Your task to perform on an android device: check data usage Image 0: 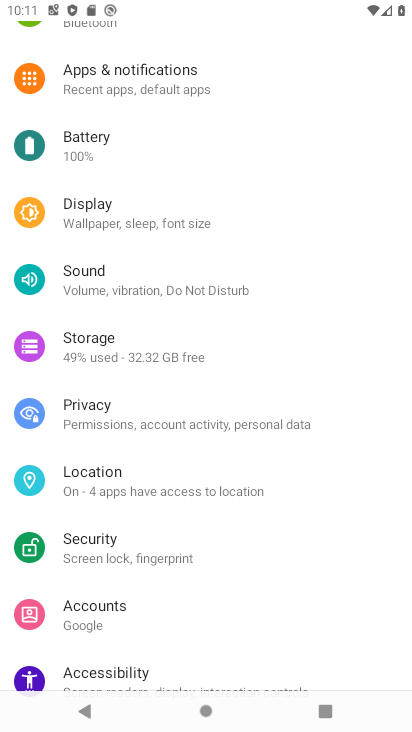
Step 0: press home button
Your task to perform on an android device: check data usage Image 1: 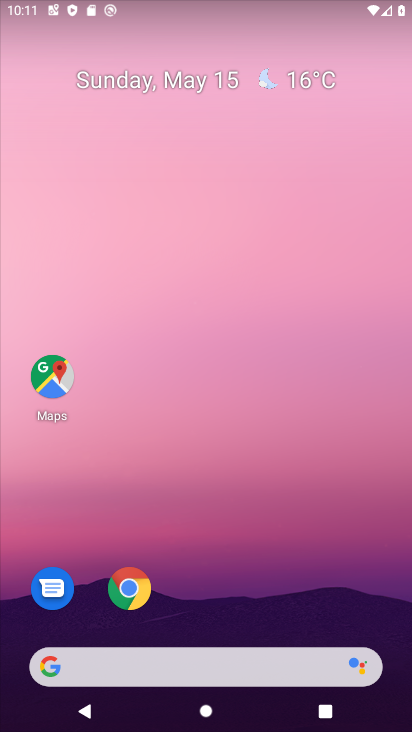
Step 1: drag from (209, 442) to (269, 13)
Your task to perform on an android device: check data usage Image 2: 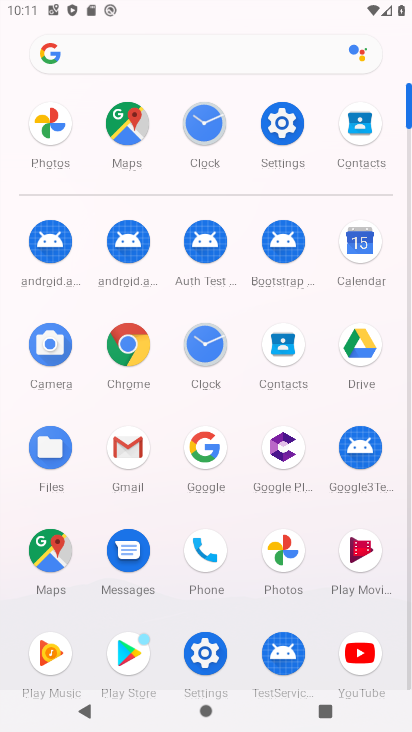
Step 2: click (276, 138)
Your task to perform on an android device: check data usage Image 3: 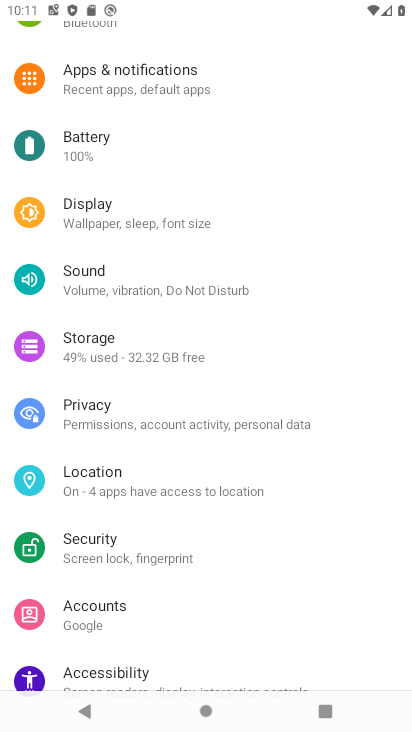
Step 3: drag from (171, 101) to (148, 455)
Your task to perform on an android device: check data usage Image 4: 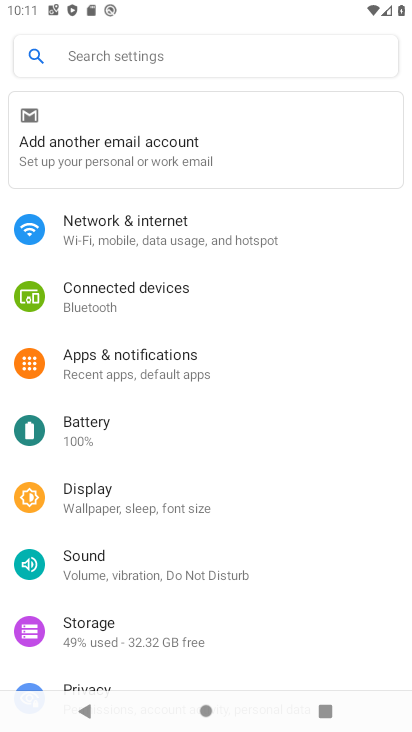
Step 4: click (186, 230)
Your task to perform on an android device: check data usage Image 5: 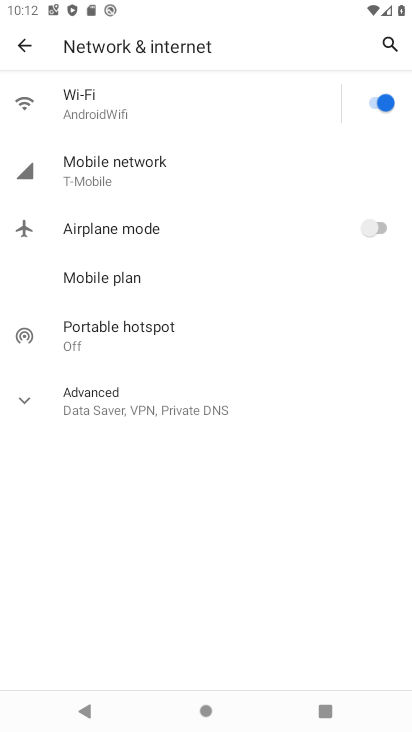
Step 5: click (158, 165)
Your task to perform on an android device: check data usage Image 6: 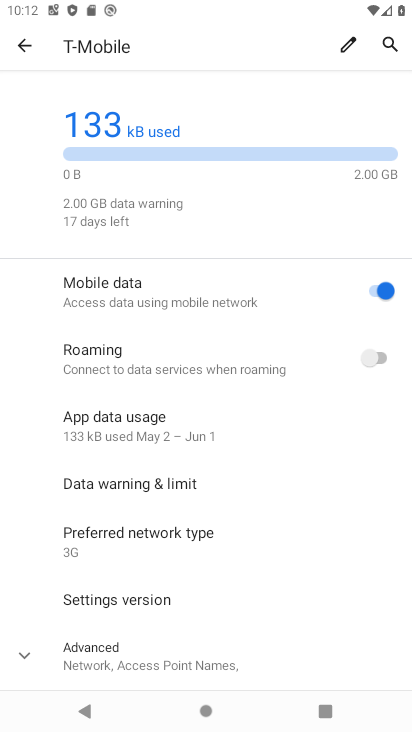
Step 6: task complete